Your task to perform on an android device: turn off priority inbox in the gmail app Image 0: 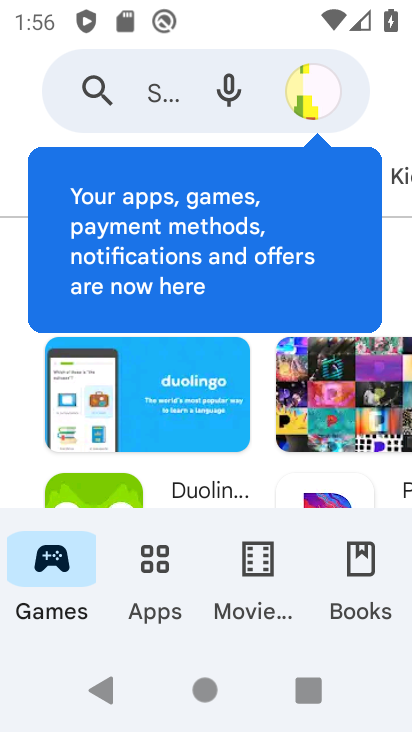
Step 0: press home button
Your task to perform on an android device: turn off priority inbox in the gmail app Image 1: 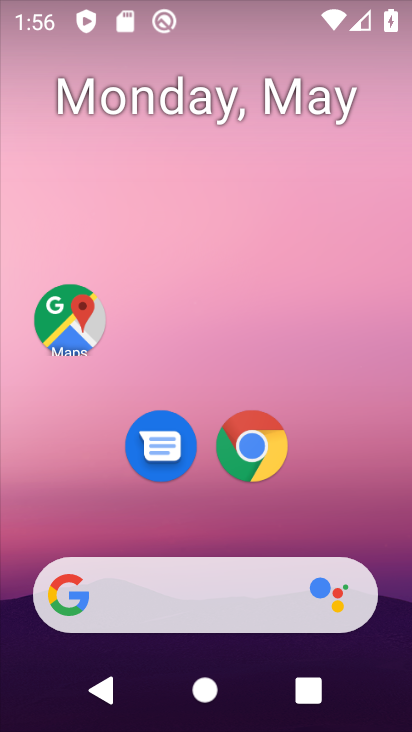
Step 1: drag from (357, 490) to (338, 152)
Your task to perform on an android device: turn off priority inbox in the gmail app Image 2: 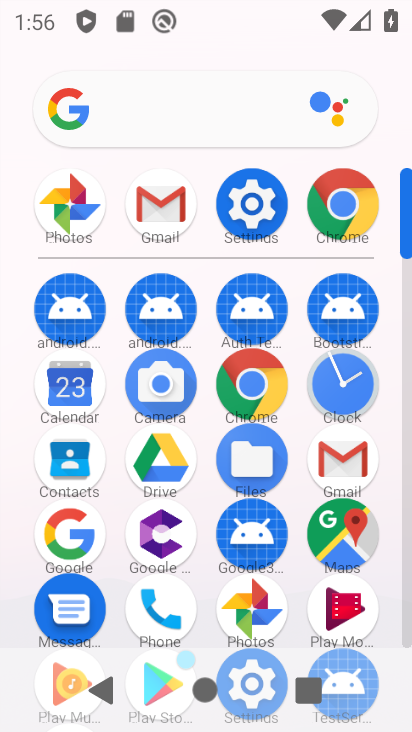
Step 2: click (350, 462)
Your task to perform on an android device: turn off priority inbox in the gmail app Image 3: 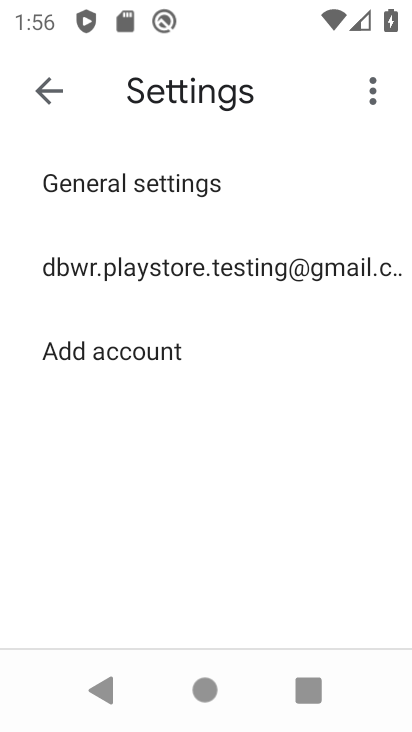
Step 3: click (268, 278)
Your task to perform on an android device: turn off priority inbox in the gmail app Image 4: 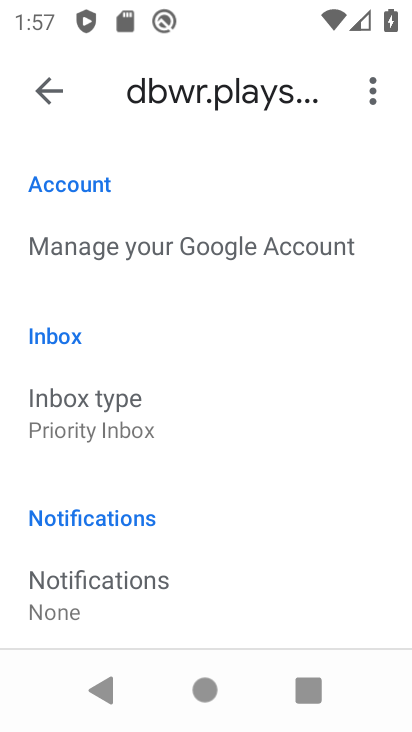
Step 4: click (142, 404)
Your task to perform on an android device: turn off priority inbox in the gmail app Image 5: 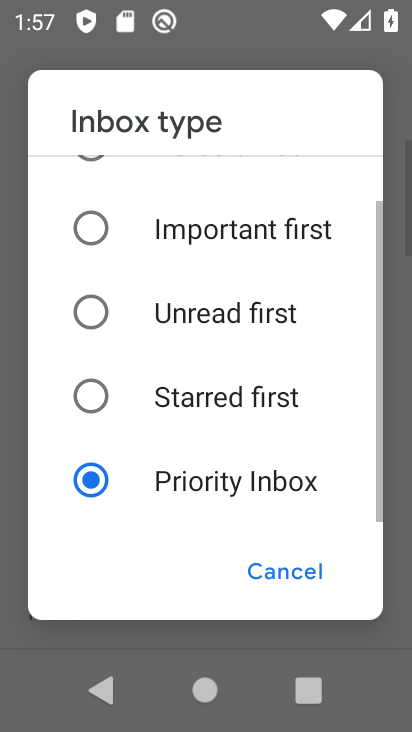
Step 5: drag from (145, 232) to (137, 438)
Your task to perform on an android device: turn off priority inbox in the gmail app Image 6: 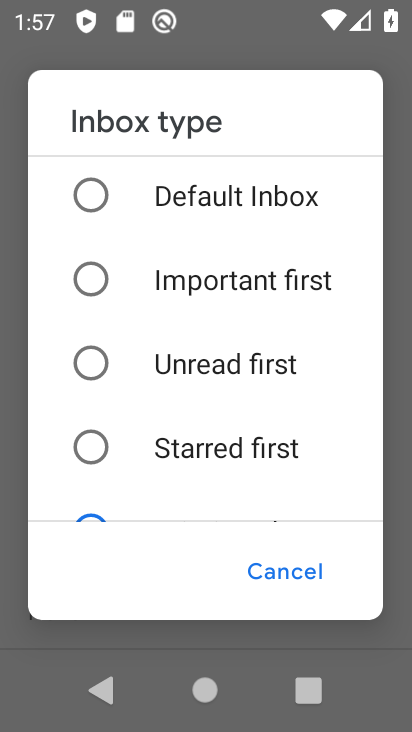
Step 6: click (93, 191)
Your task to perform on an android device: turn off priority inbox in the gmail app Image 7: 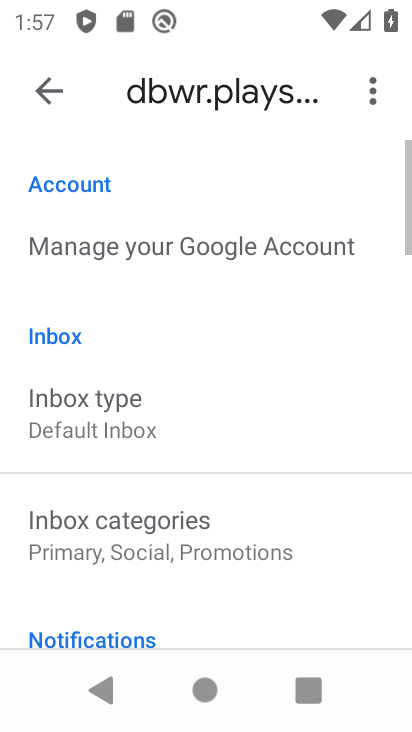
Step 7: task complete